Your task to perform on an android device: Go to sound settings Image 0: 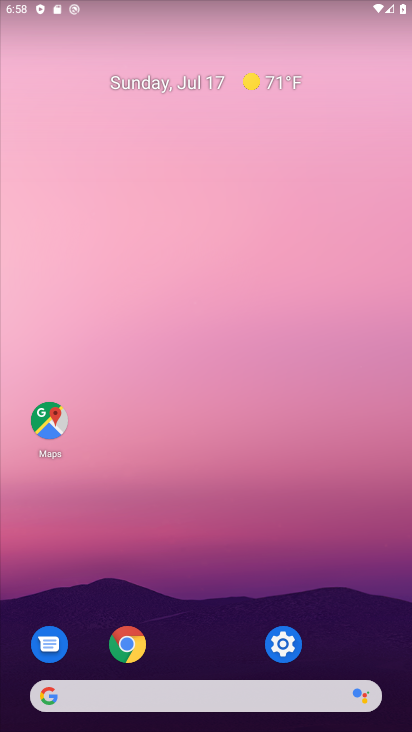
Step 0: click (284, 643)
Your task to perform on an android device: Go to sound settings Image 1: 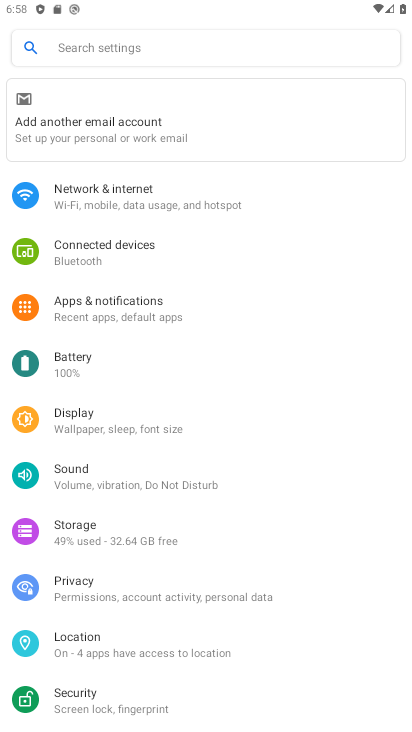
Step 1: click (112, 477)
Your task to perform on an android device: Go to sound settings Image 2: 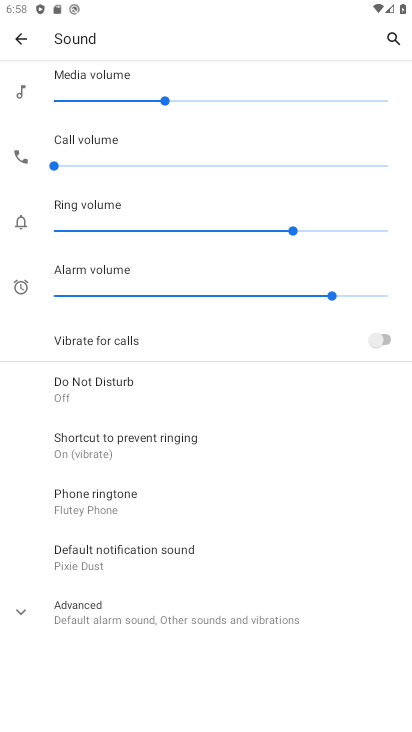
Step 2: task complete